Your task to perform on an android device: Open Maps and search for coffee Image 0: 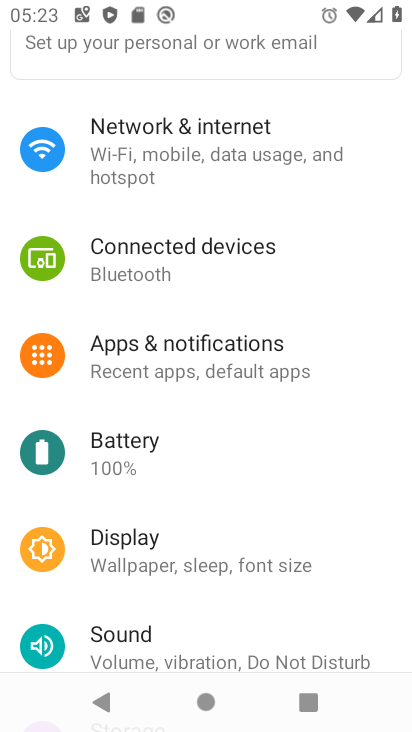
Step 0: press home button
Your task to perform on an android device: Open Maps and search for coffee Image 1: 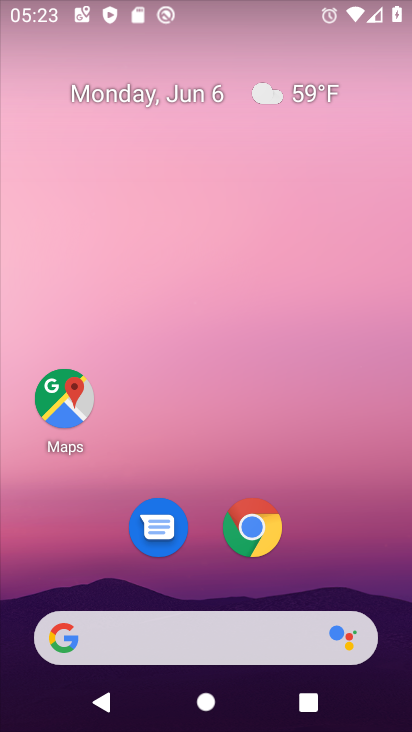
Step 1: click (83, 396)
Your task to perform on an android device: Open Maps and search for coffee Image 2: 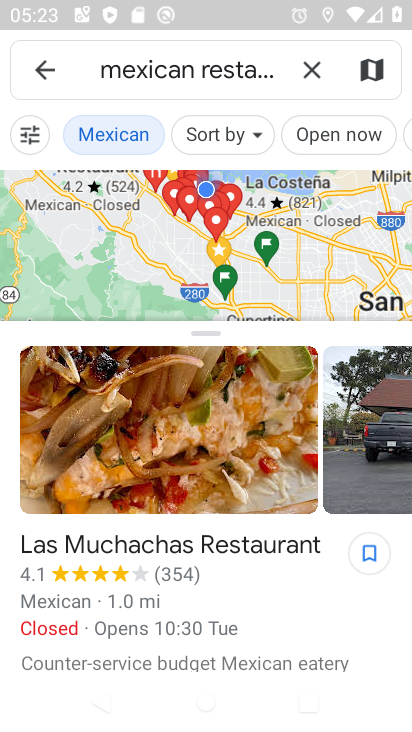
Step 2: click (301, 59)
Your task to perform on an android device: Open Maps and search for coffee Image 3: 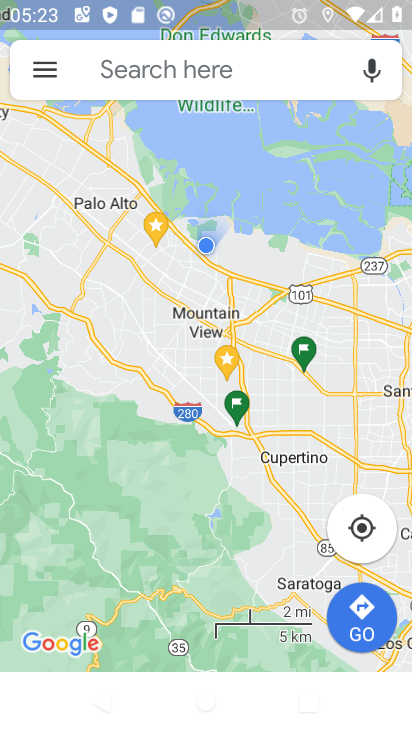
Step 3: click (162, 67)
Your task to perform on an android device: Open Maps and search for coffee Image 4: 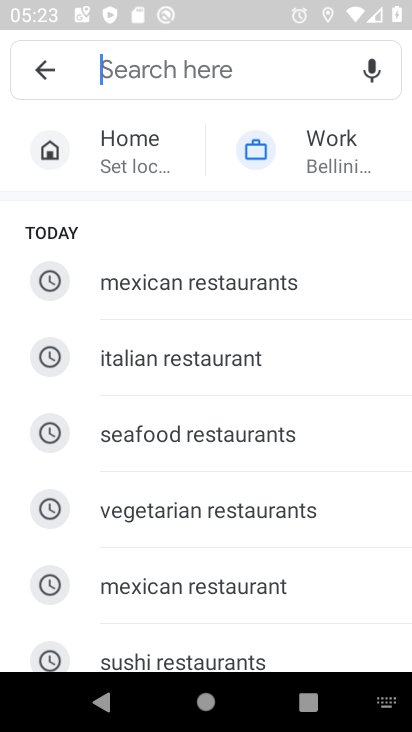
Step 4: type "coffee"
Your task to perform on an android device: Open Maps and search for coffee Image 5: 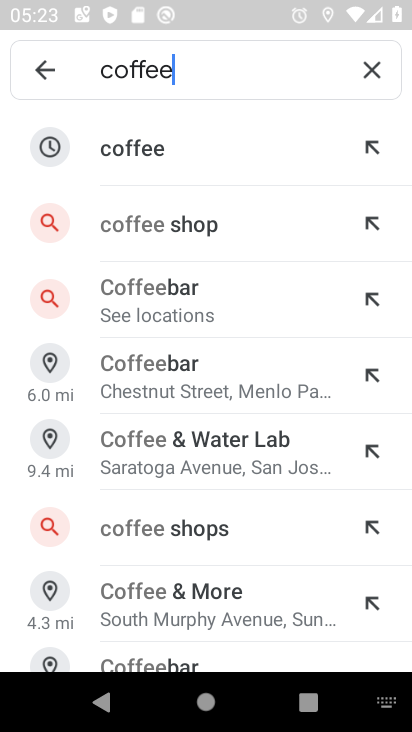
Step 5: click (148, 140)
Your task to perform on an android device: Open Maps and search for coffee Image 6: 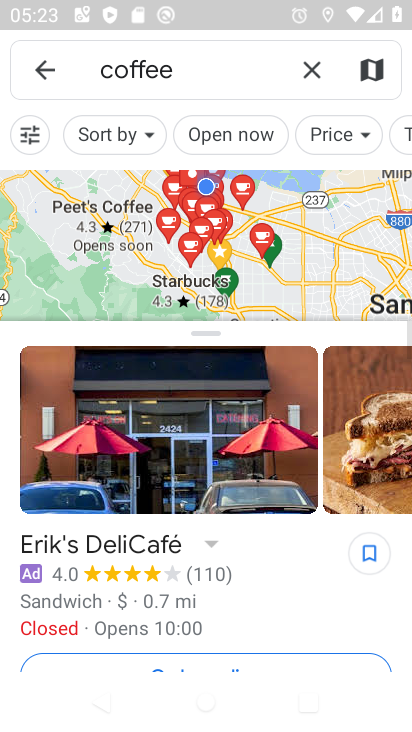
Step 6: task complete